Your task to perform on an android device: What is the news today? Image 0: 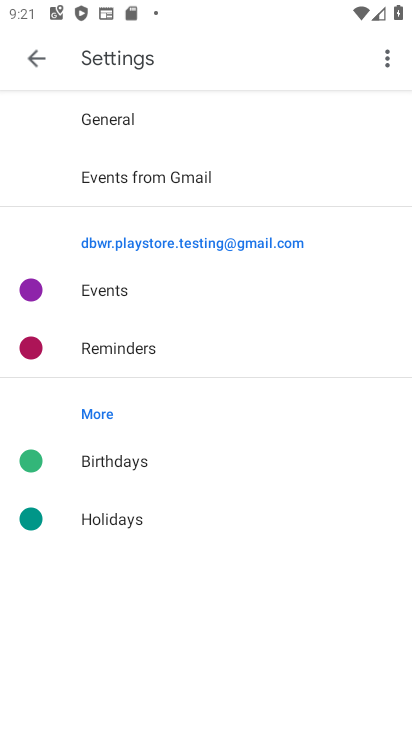
Step 0: drag from (246, 556) to (242, 370)
Your task to perform on an android device: What is the news today? Image 1: 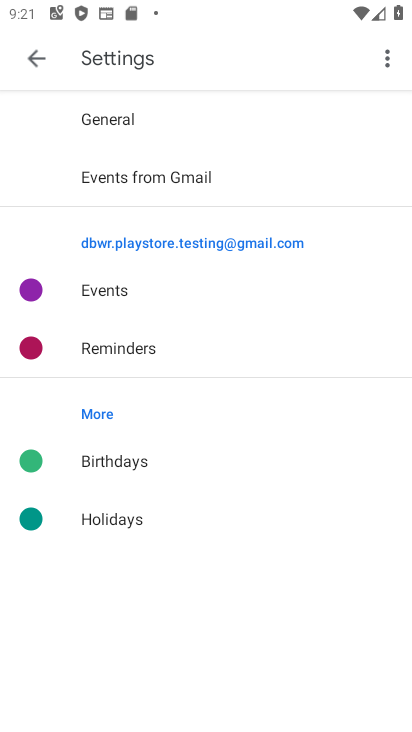
Step 1: press back button
Your task to perform on an android device: What is the news today? Image 2: 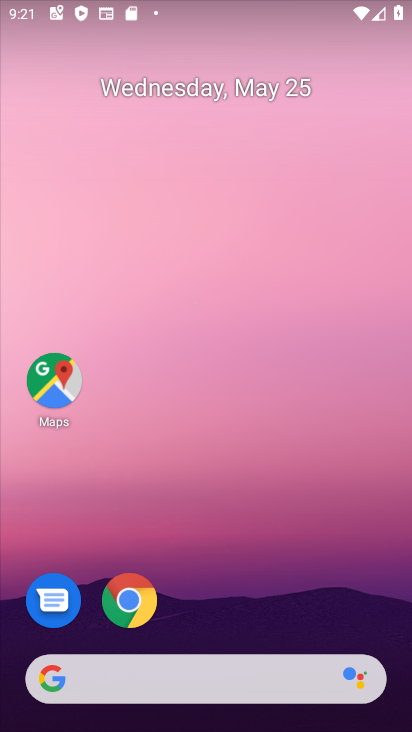
Step 2: drag from (207, 591) to (210, 21)
Your task to perform on an android device: What is the news today? Image 3: 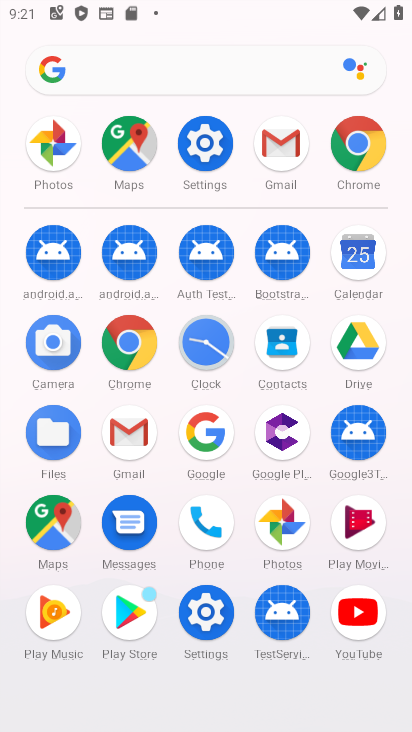
Step 3: drag from (10, 602) to (12, 284)
Your task to perform on an android device: What is the news today? Image 4: 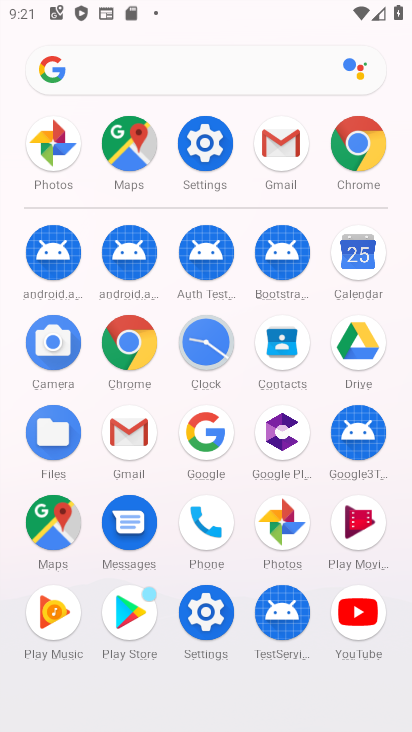
Step 4: click (126, 339)
Your task to perform on an android device: What is the news today? Image 5: 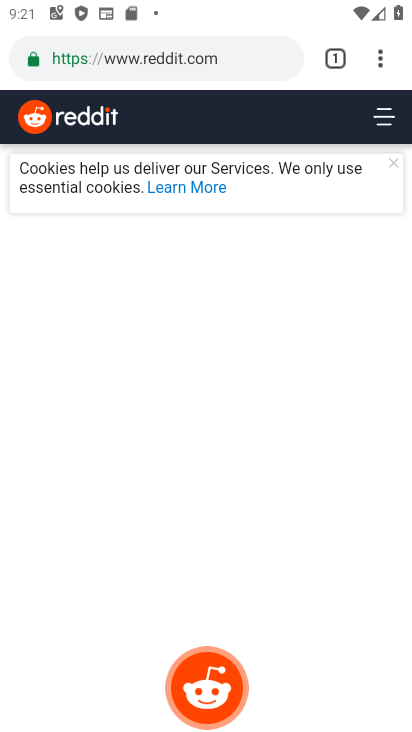
Step 5: click (139, 61)
Your task to perform on an android device: What is the news today? Image 6: 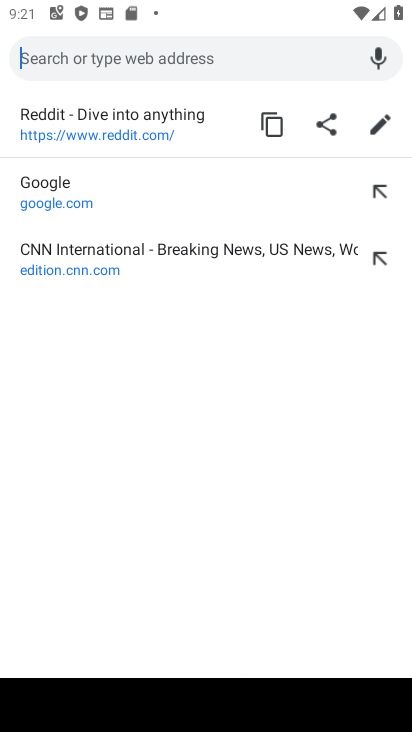
Step 6: type "What is the news today?"
Your task to perform on an android device: What is the news today? Image 7: 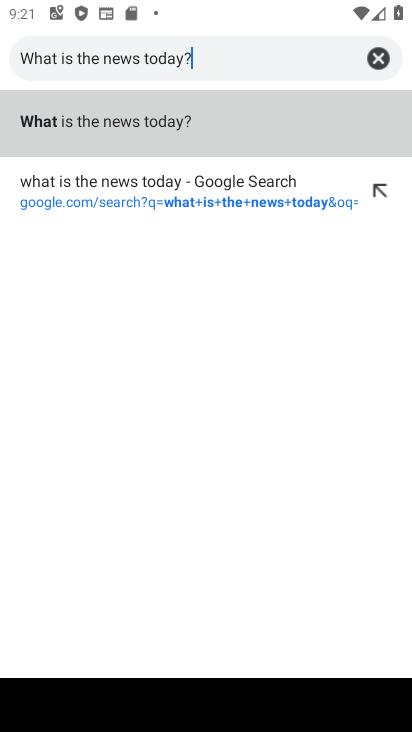
Step 7: type ""
Your task to perform on an android device: What is the news today? Image 8: 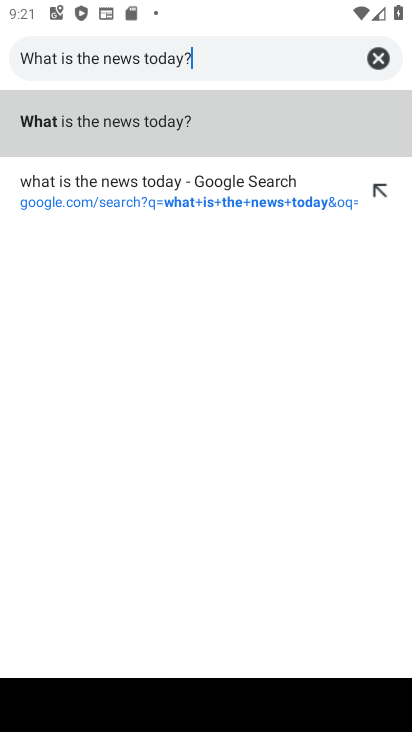
Step 8: click (148, 119)
Your task to perform on an android device: What is the news today? Image 9: 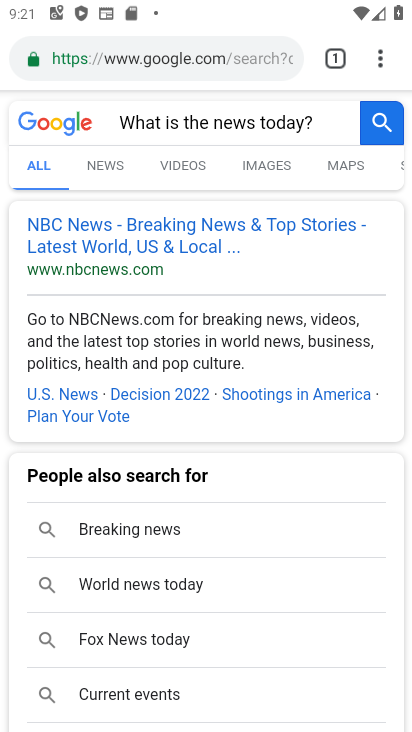
Step 9: click (105, 159)
Your task to perform on an android device: What is the news today? Image 10: 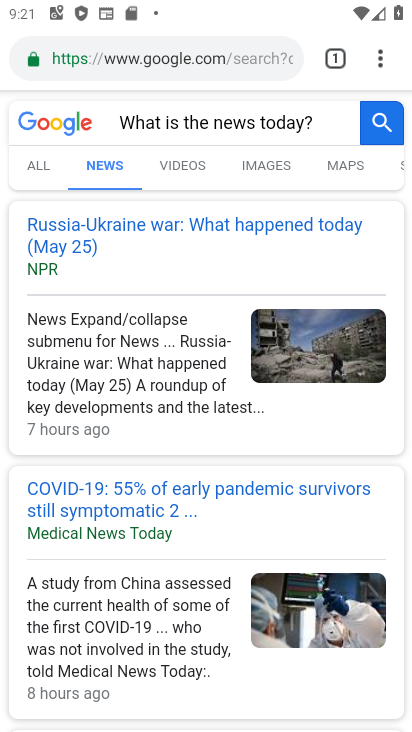
Step 10: task complete